Your task to perform on an android device: Open Wikipedia Image 0: 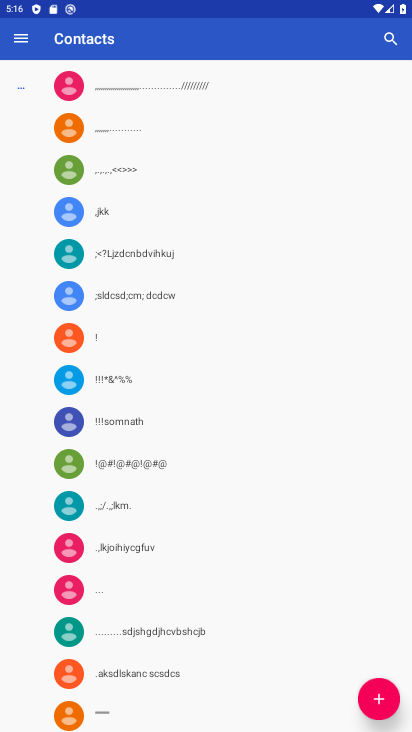
Step 0: press home button
Your task to perform on an android device: Open Wikipedia Image 1: 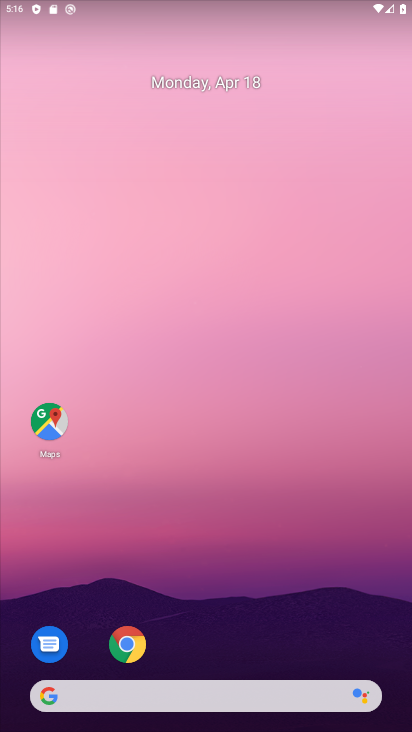
Step 1: drag from (209, 642) to (265, 168)
Your task to perform on an android device: Open Wikipedia Image 2: 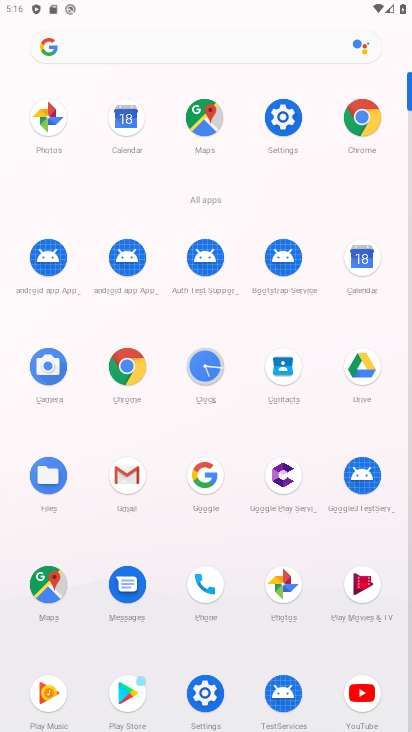
Step 2: click (124, 365)
Your task to perform on an android device: Open Wikipedia Image 3: 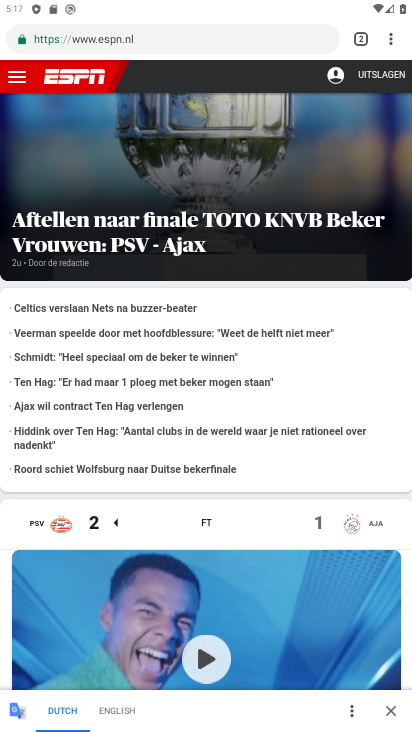
Step 3: click (358, 37)
Your task to perform on an android device: Open Wikipedia Image 4: 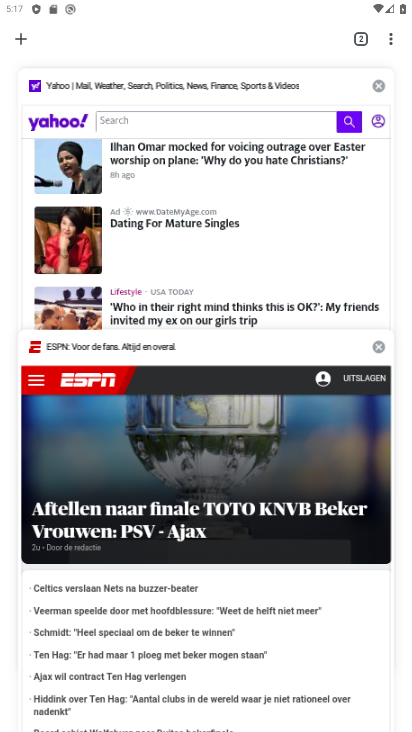
Step 4: click (24, 35)
Your task to perform on an android device: Open Wikipedia Image 5: 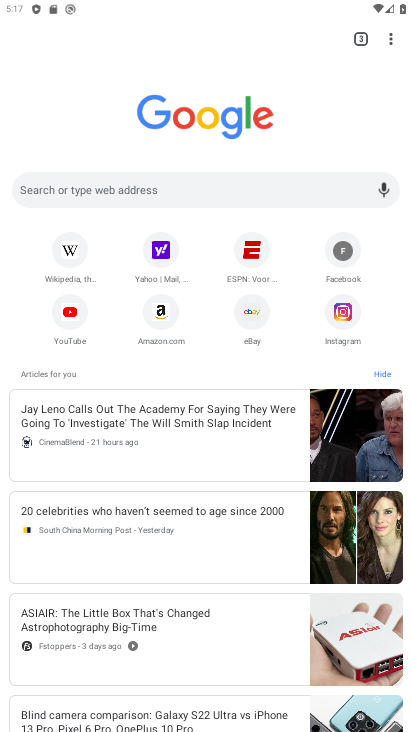
Step 5: click (64, 252)
Your task to perform on an android device: Open Wikipedia Image 6: 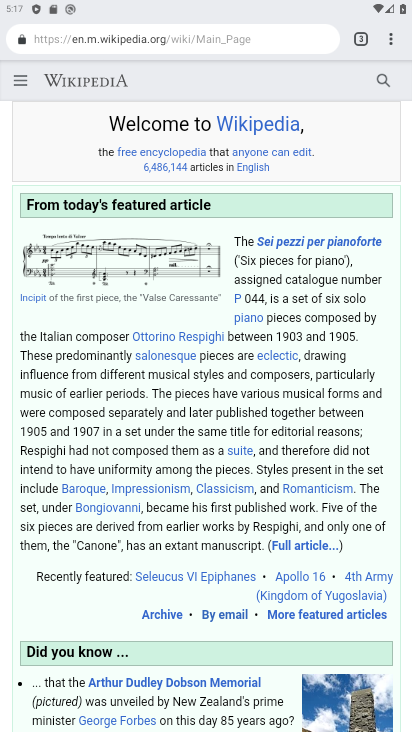
Step 6: task complete